Your task to perform on an android device: see tabs open on other devices in the chrome app Image 0: 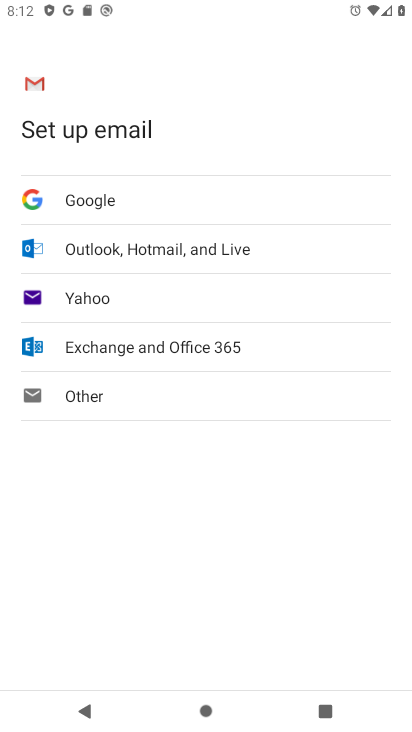
Step 0: press home button
Your task to perform on an android device: see tabs open on other devices in the chrome app Image 1: 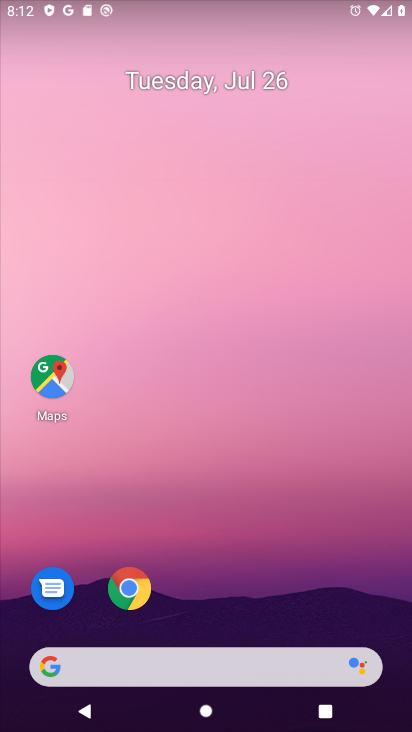
Step 1: drag from (211, 610) to (274, 52)
Your task to perform on an android device: see tabs open on other devices in the chrome app Image 2: 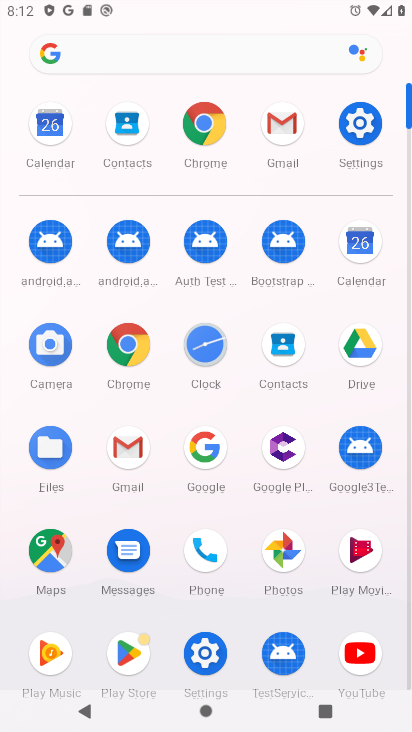
Step 2: click (214, 134)
Your task to perform on an android device: see tabs open on other devices in the chrome app Image 3: 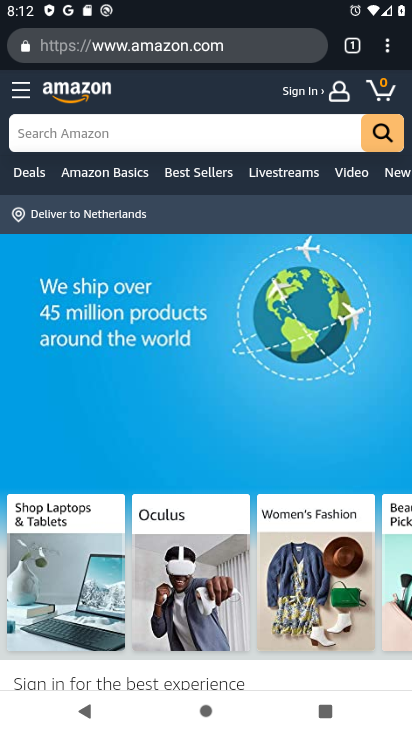
Step 3: task complete